Your task to perform on an android device: Open calendar and show me the third week of next month Image 0: 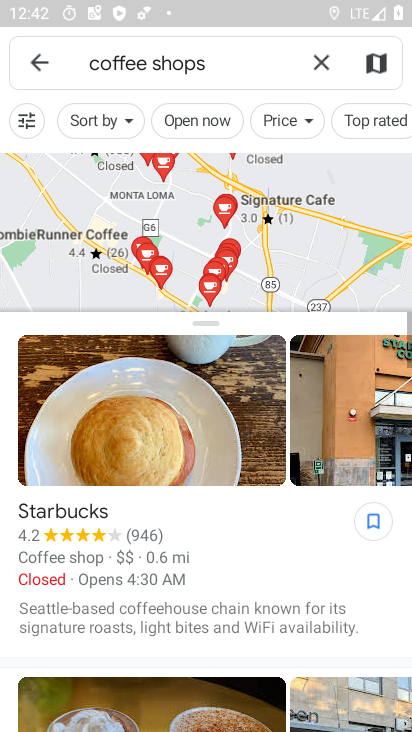
Step 0: drag from (235, 604) to (227, 205)
Your task to perform on an android device: Open calendar and show me the third week of next month Image 1: 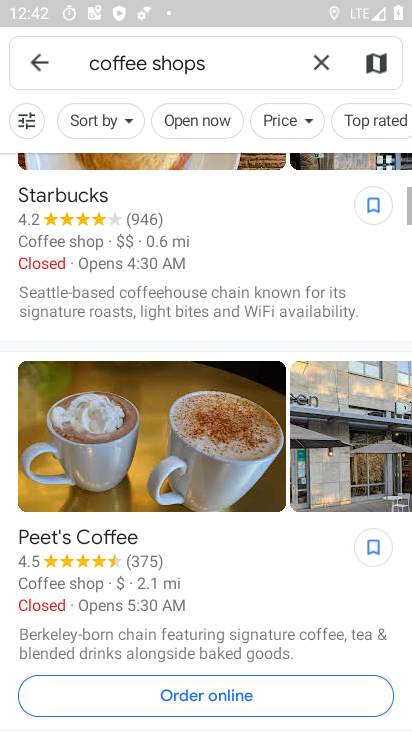
Step 1: press home button
Your task to perform on an android device: Open calendar and show me the third week of next month Image 2: 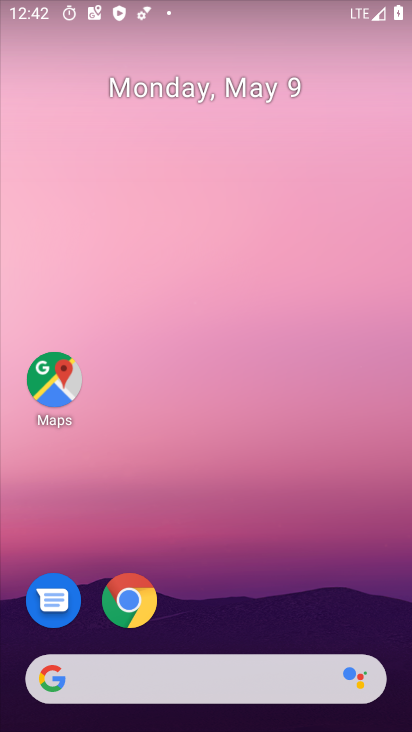
Step 2: drag from (286, 572) to (264, 92)
Your task to perform on an android device: Open calendar and show me the third week of next month Image 3: 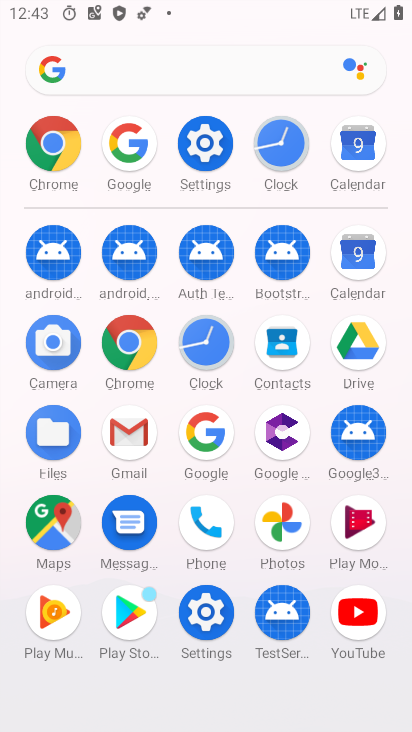
Step 3: click (357, 290)
Your task to perform on an android device: Open calendar and show me the third week of next month Image 4: 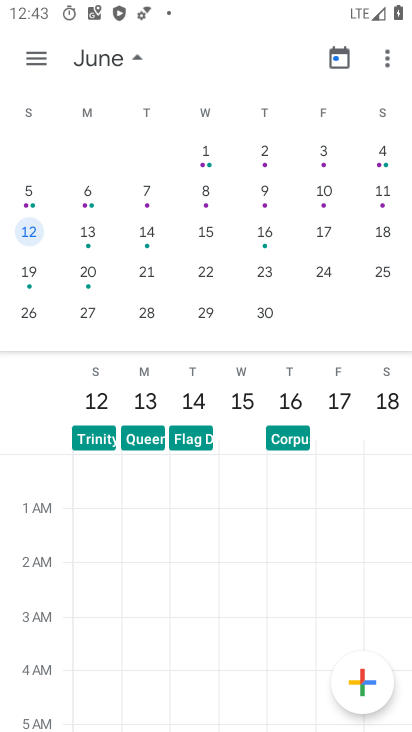
Step 4: task complete